Your task to perform on an android device: open app "Gmail" (install if not already installed) Image 0: 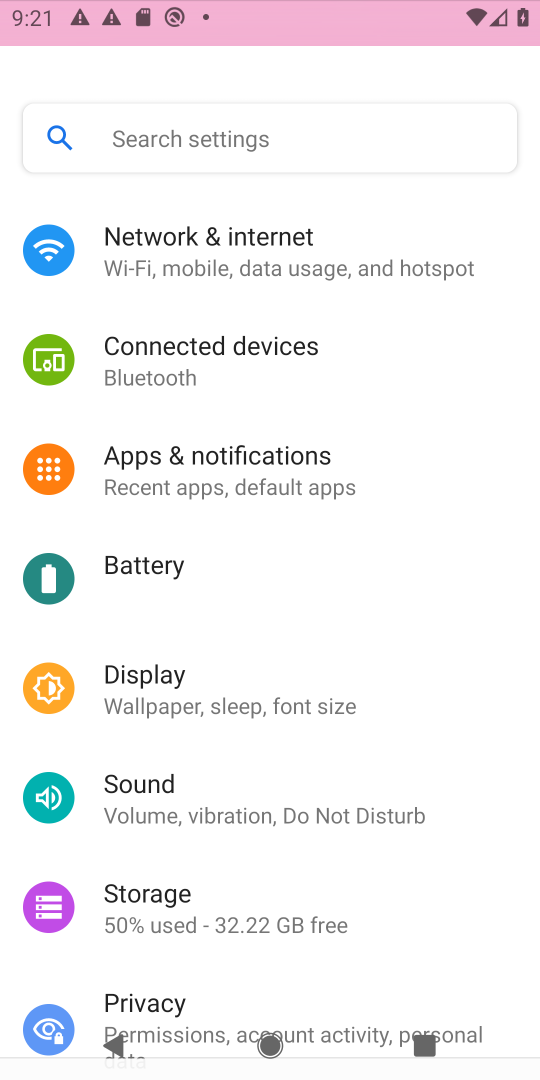
Step 0: drag from (298, 415) to (298, 305)
Your task to perform on an android device: open app "Gmail" (install if not already installed) Image 1: 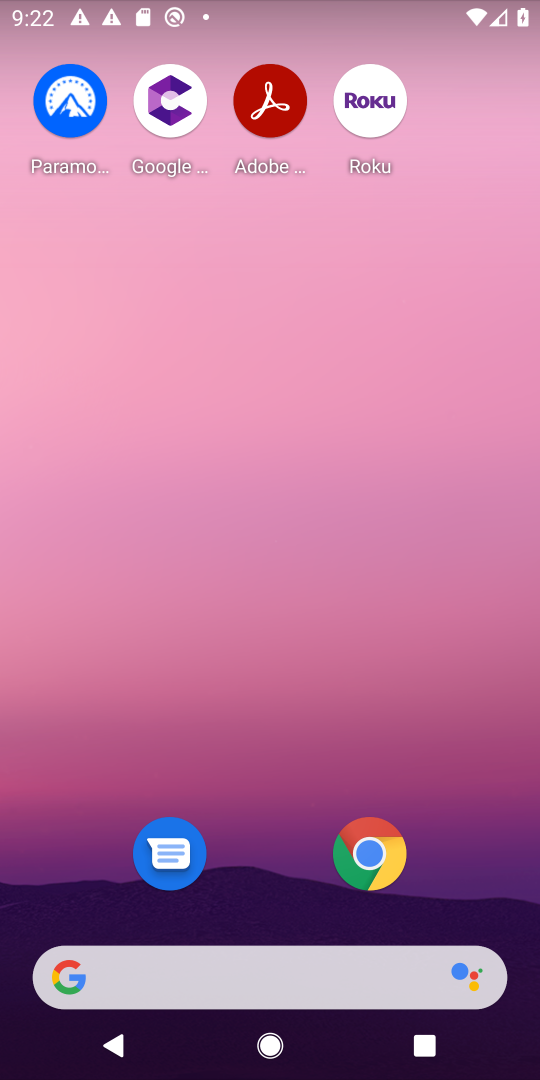
Step 1: drag from (263, 892) to (372, 227)
Your task to perform on an android device: open app "Gmail" (install if not already installed) Image 2: 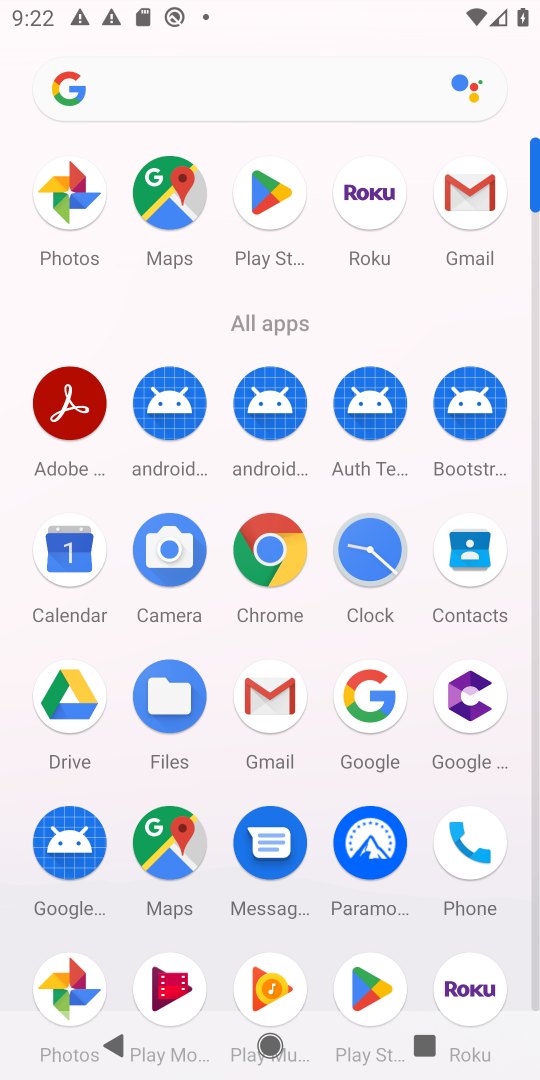
Step 2: click (382, 995)
Your task to perform on an android device: open app "Gmail" (install if not already installed) Image 3: 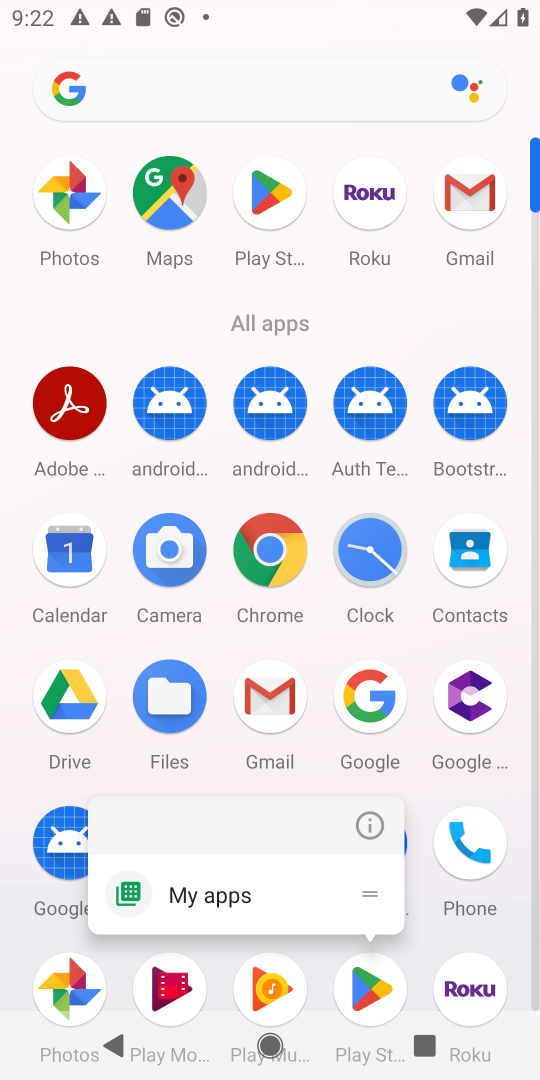
Step 3: click (363, 820)
Your task to perform on an android device: open app "Gmail" (install if not already installed) Image 4: 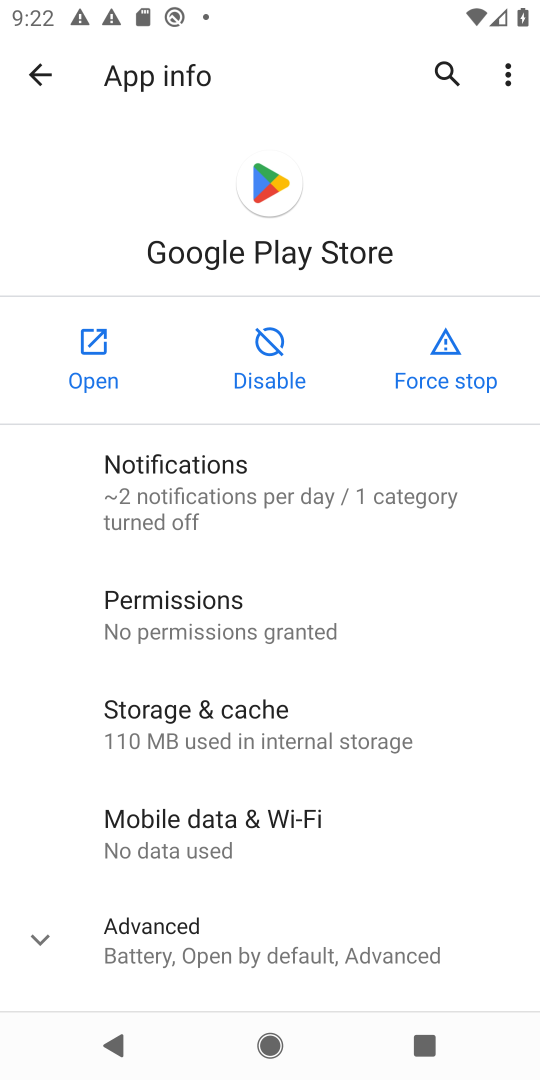
Step 4: click (78, 351)
Your task to perform on an android device: open app "Gmail" (install if not already installed) Image 5: 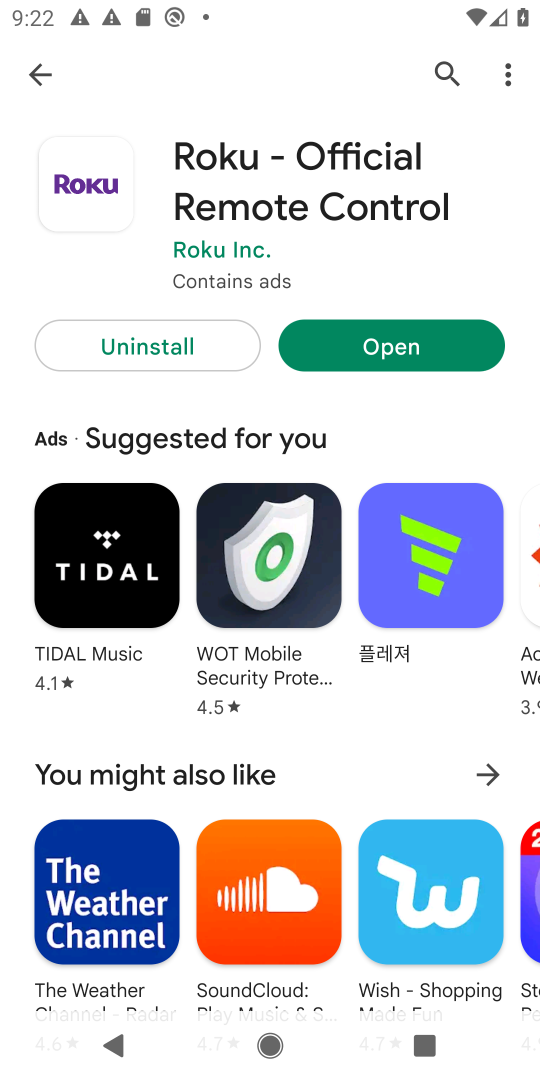
Step 5: click (450, 62)
Your task to perform on an android device: open app "Gmail" (install if not already installed) Image 6: 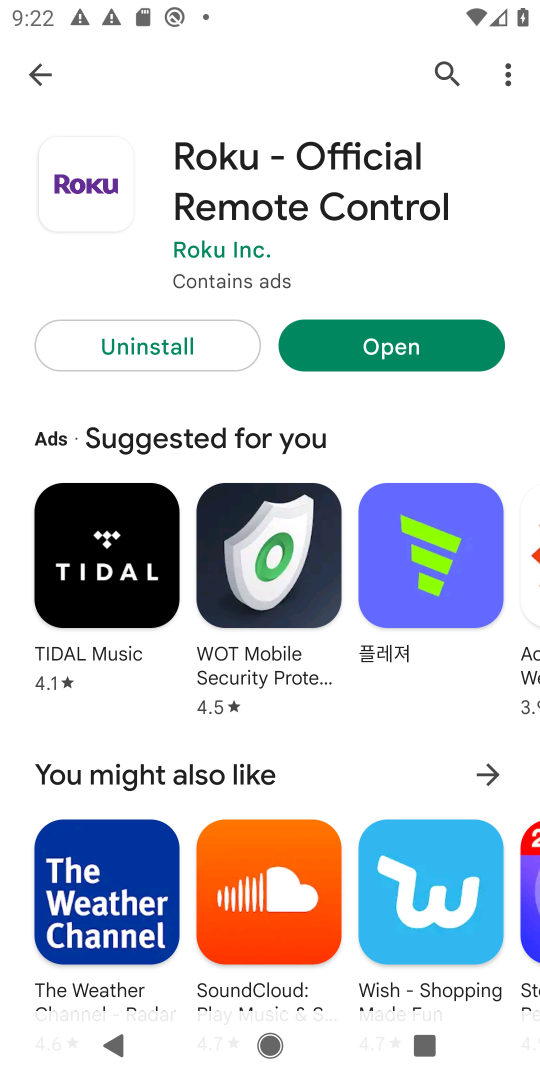
Step 6: type "Gmail"
Your task to perform on an android device: open app "Gmail" (install if not already installed) Image 7: 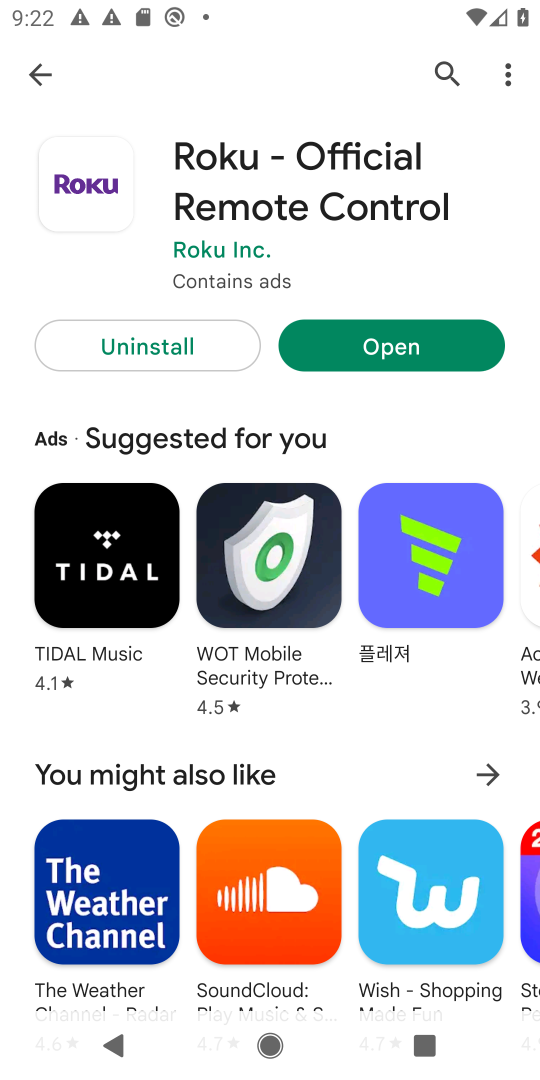
Step 7: click (450, 61)
Your task to perform on an android device: open app "Gmail" (install if not already installed) Image 8: 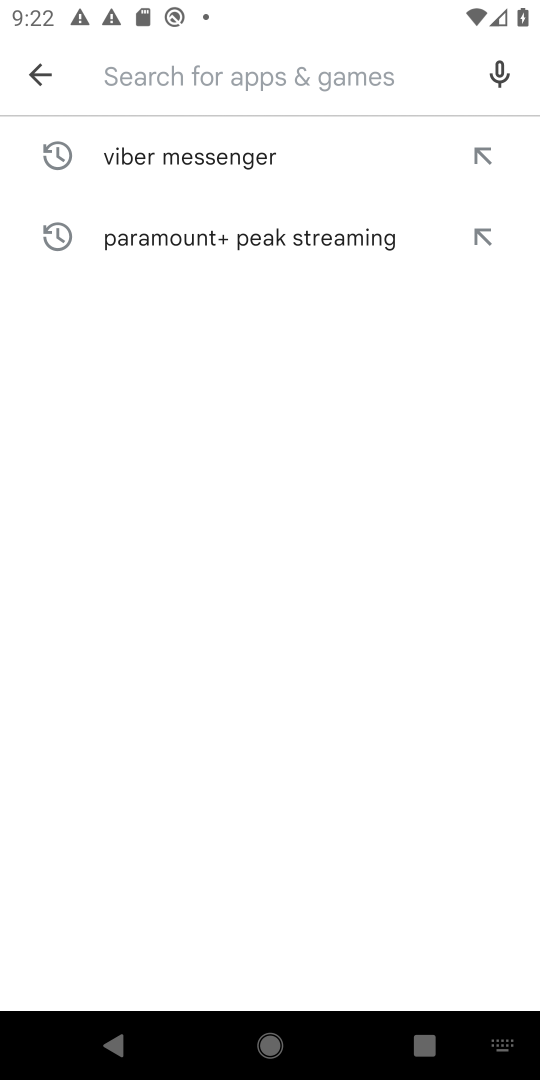
Step 8: type "Gmail"
Your task to perform on an android device: open app "Gmail" (install if not already installed) Image 9: 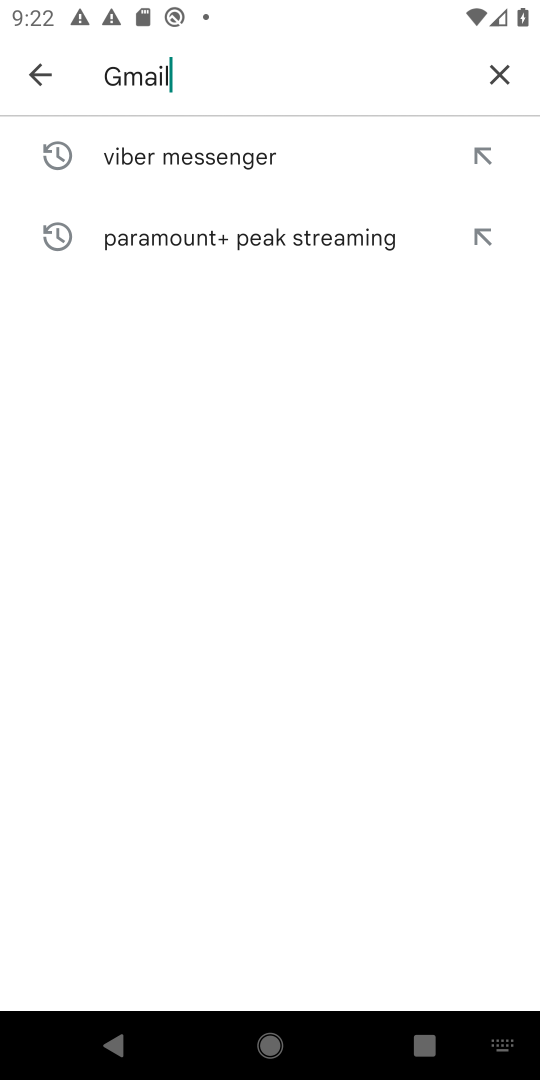
Step 9: type ""
Your task to perform on an android device: open app "Gmail" (install if not already installed) Image 10: 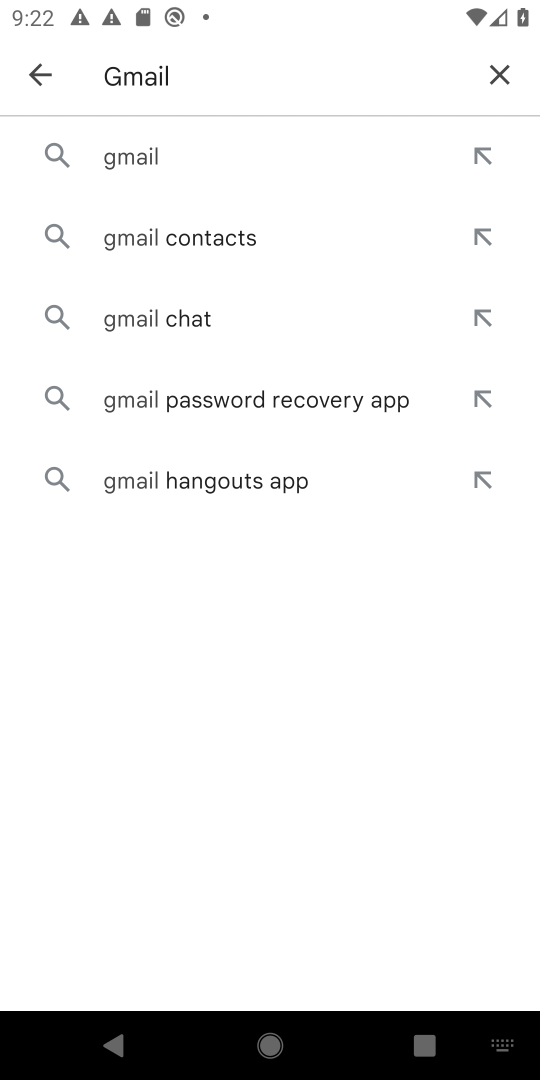
Step 10: click (143, 152)
Your task to perform on an android device: open app "Gmail" (install if not already installed) Image 11: 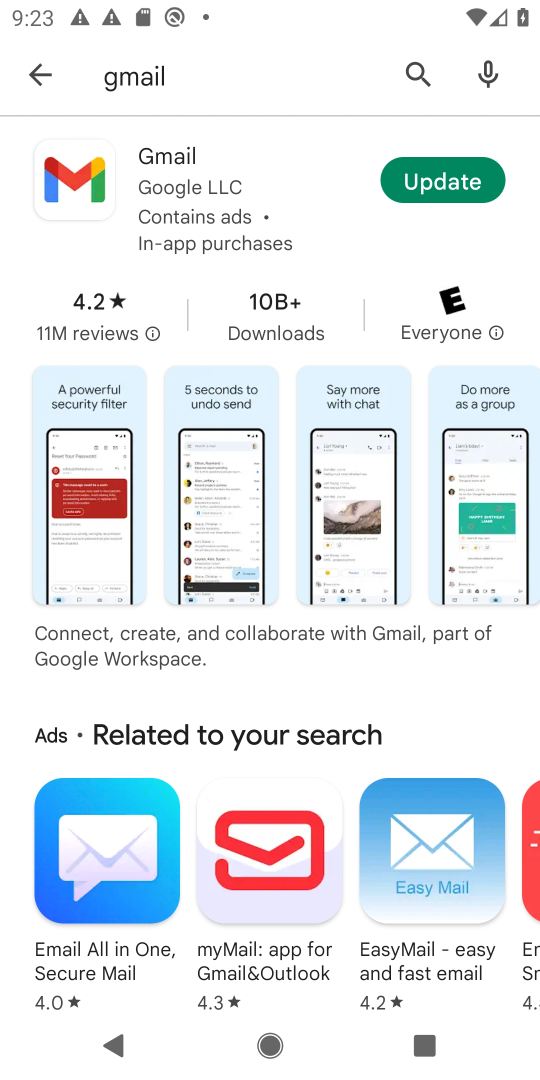
Step 11: click (135, 182)
Your task to perform on an android device: open app "Gmail" (install if not already installed) Image 12: 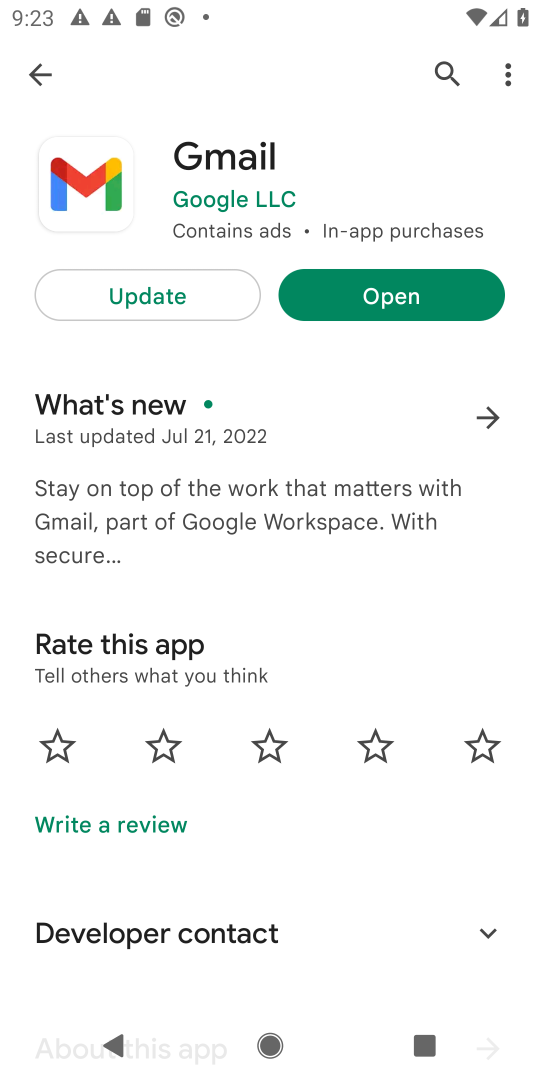
Step 12: click (427, 294)
Your task to perform on an android device: open app "Gmail" (install if not already installed) Image 13: 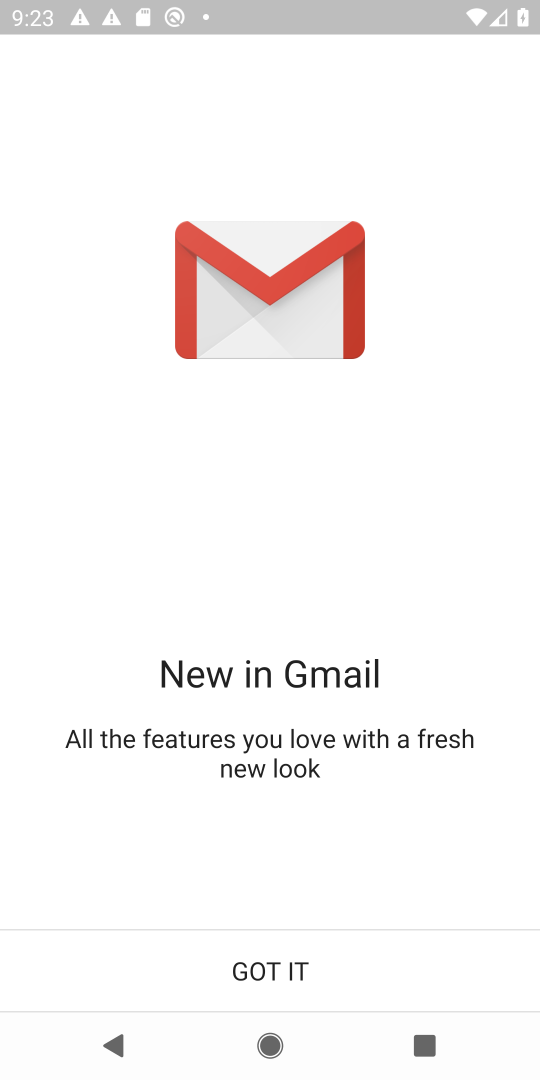
Step 13: click (235, 956)
Your task to perform on an android device: open app "Gmail" (install if not already installed) Image 14: 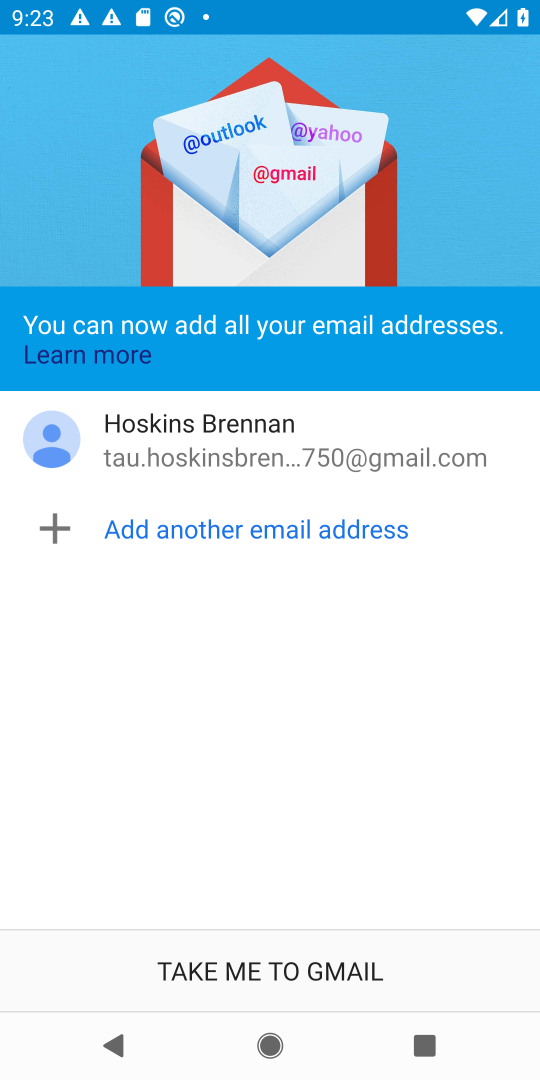
Step 14: click (363, 981)
Your task to perform on an android device: open app "Gmail" (install if not already installed) Image 15: 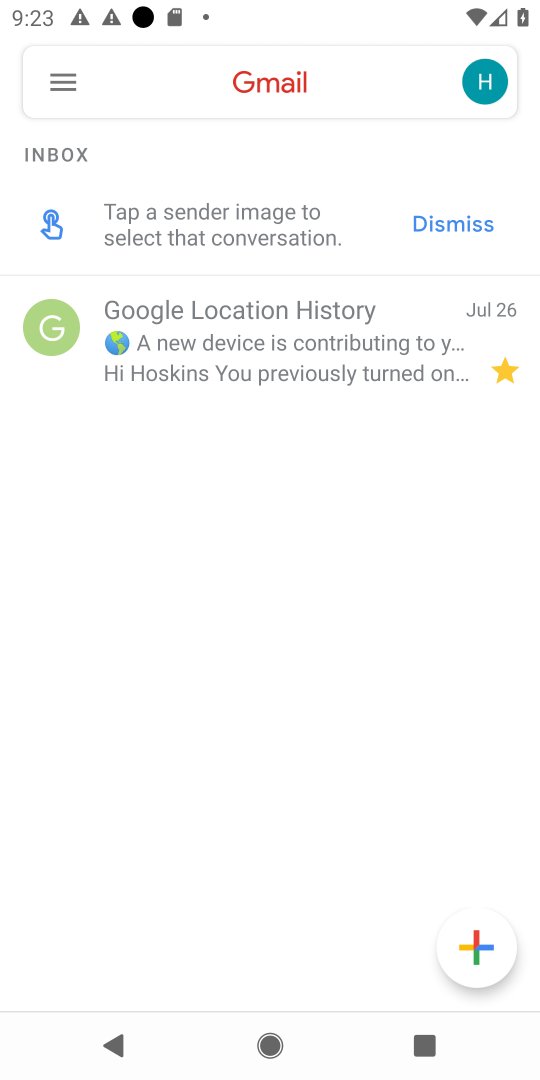
Step 15: task complete